Your task to perform on an android device: Go to Maps Image 0: 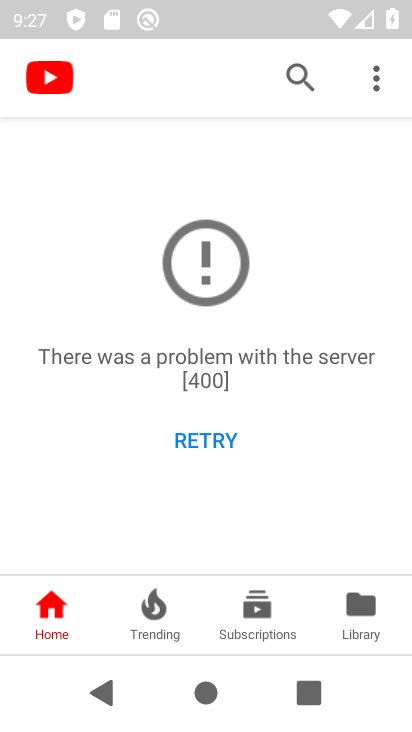
Step 0: press home button
Your task to perform on an android device: Go to Maps Image 1: 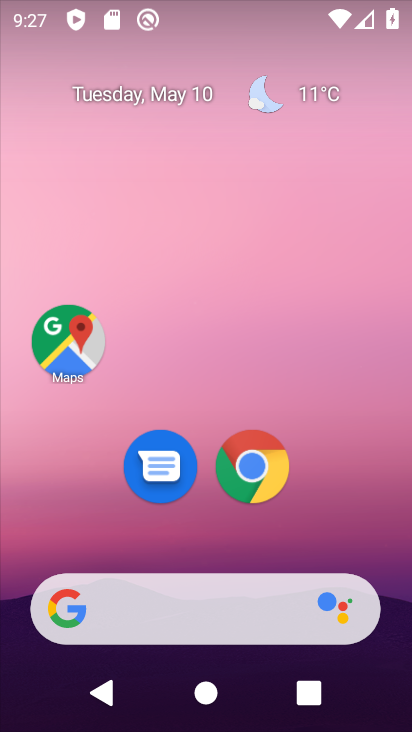
Step 1: click (70, 346)
Your task to perform on an android device: Go to Maps Image 2: 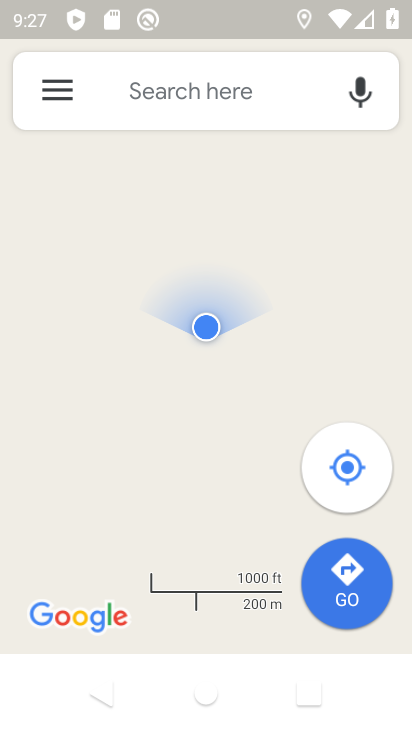
Step 2: task complete